Your task to perform on an android device: Open sound settings Image 0: 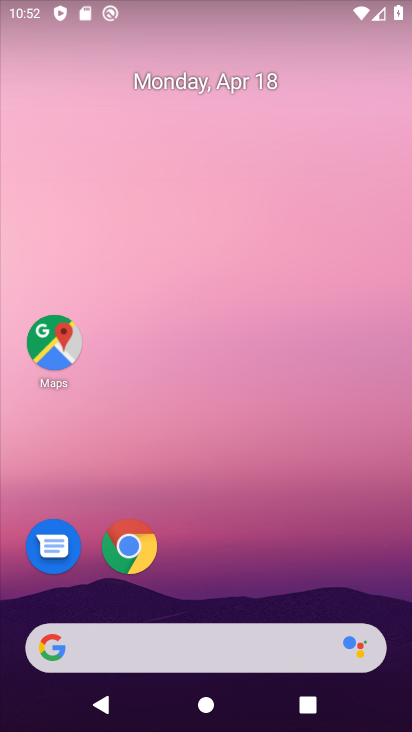
Step 0: drag from (385, 584) to (391, 120)
Your task to perform on an android device: Open sound settings Image 1: 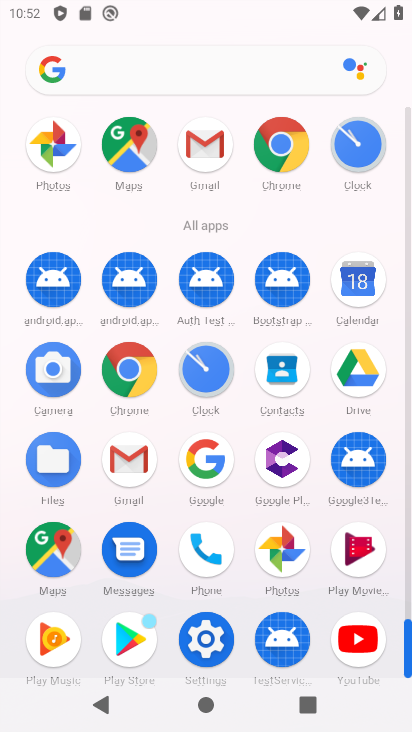
Step 1: click (205, 647)
Your task to perform on an android device: Open sound settings Image 2: 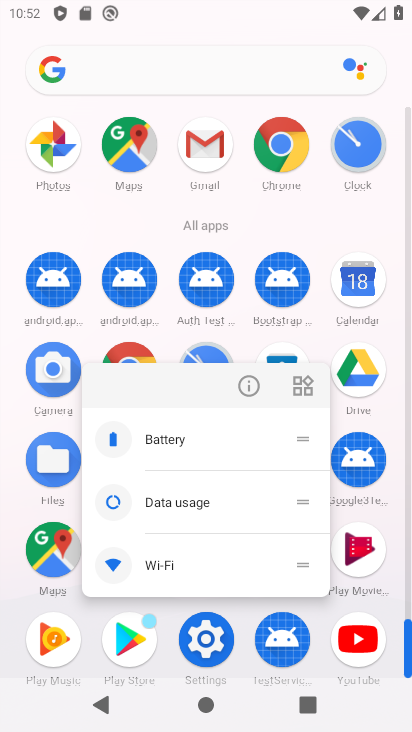
Step 2: click (206, 647)
Your task to perform on an android device: Open sound settings Image 3: 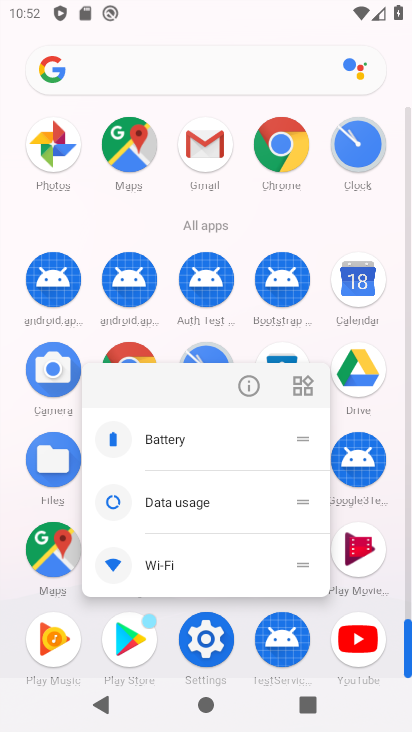
Step 3: click (206, 647)
Your task to perform on an android device: Open sound settings Image 4: 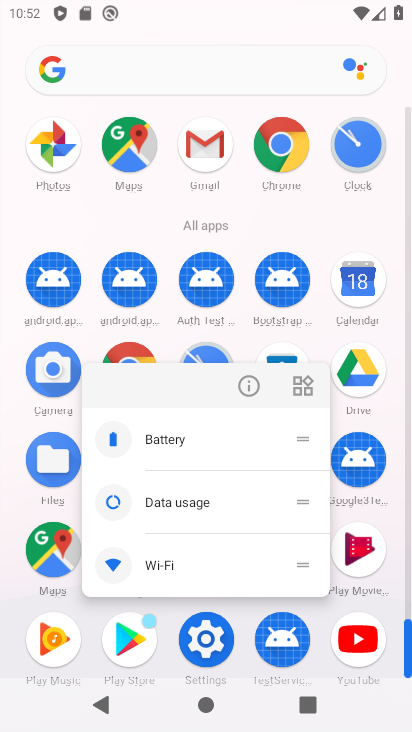
Step 4: click (204, 648)
Your task to perform on an android device: Open sound settings Image 5: 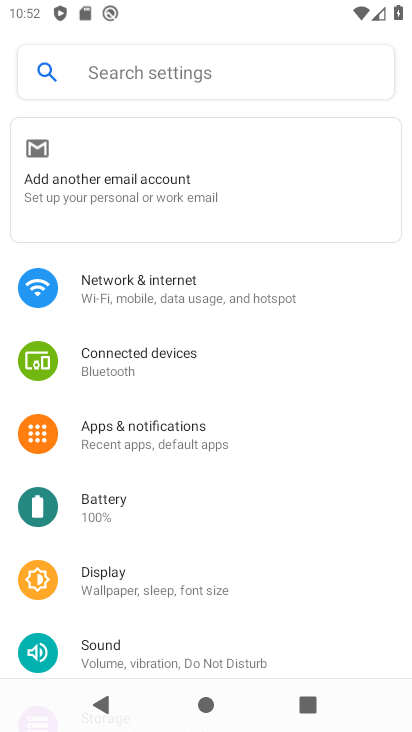
Step 5: drag from (354, 583) to (366, 431)
Your task to perform on an android device: Open sound settings Image 6: 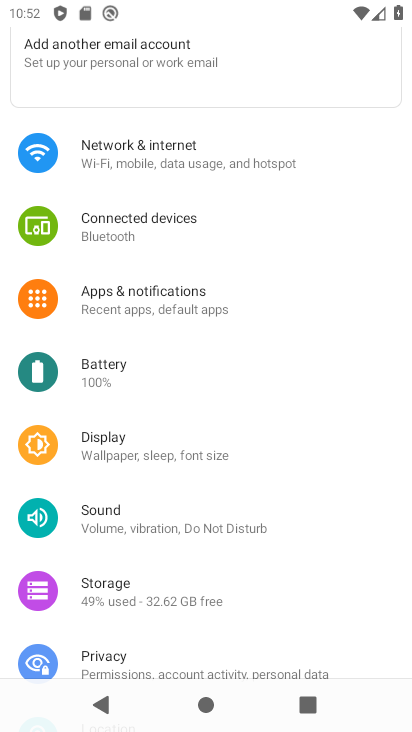
Step 6: drag from (361, 572) to (361, 404)
Your task to perform on an android device: Open sound settings Image 7: 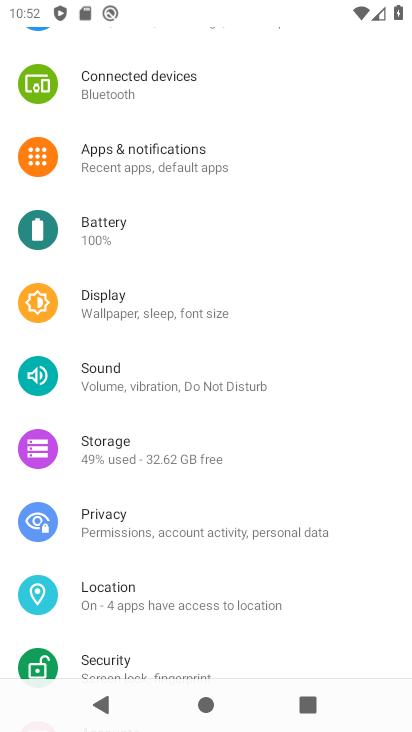
Step 7: drag from (367, 607) to (380, 377)
Your task to perform on an android device: Open sound settings Image 8: 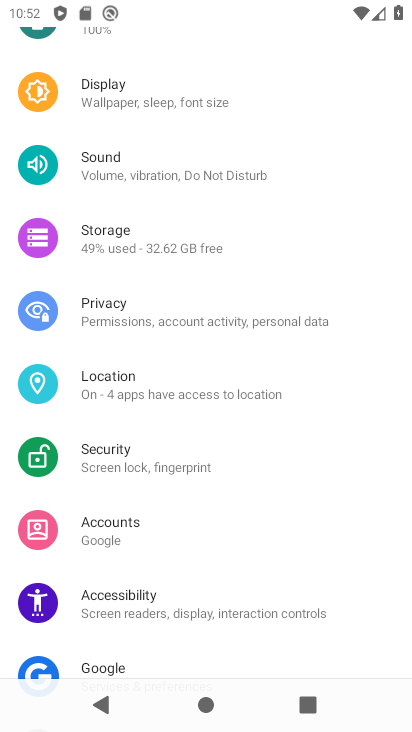
Step 8: click (203, 157)
Your task to perform on an android device: Open sound settings Image 9: 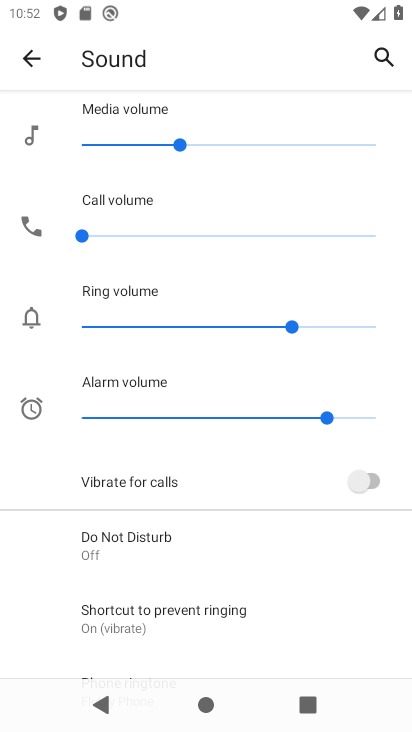
Step 9: task complete